Your task to perform on an android device: Open the stopwatch Image 0: 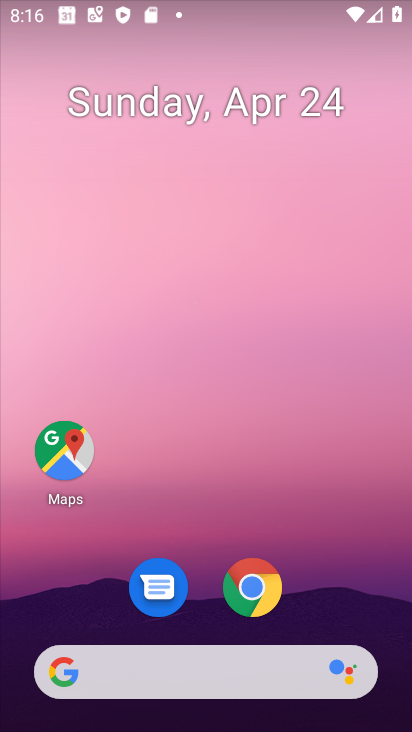
Step 0: drag from (346, 575) to (375, 236)
Your task to perform on an android device: Open the stopwatch Image 1: 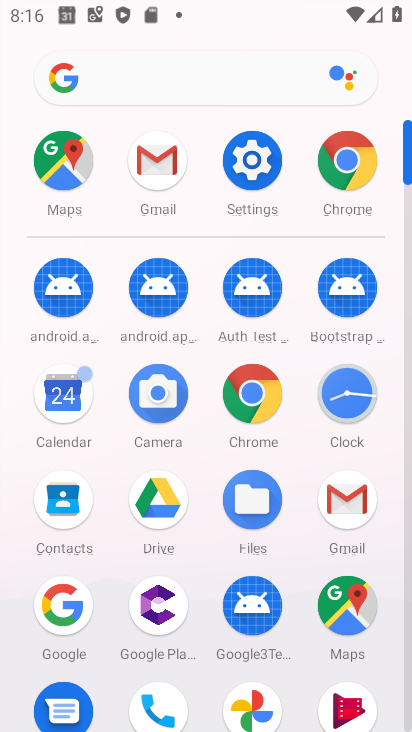
Step 1: click (335, 401)
Your task to perform on an android device: Open the stopwatch Image 2: 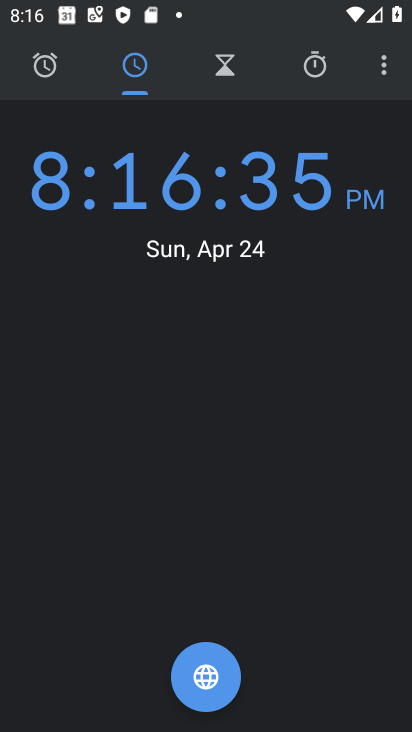
Step 2: click (323, 72)
Your task to perform on an android device: Open the stopwatch Image 3: 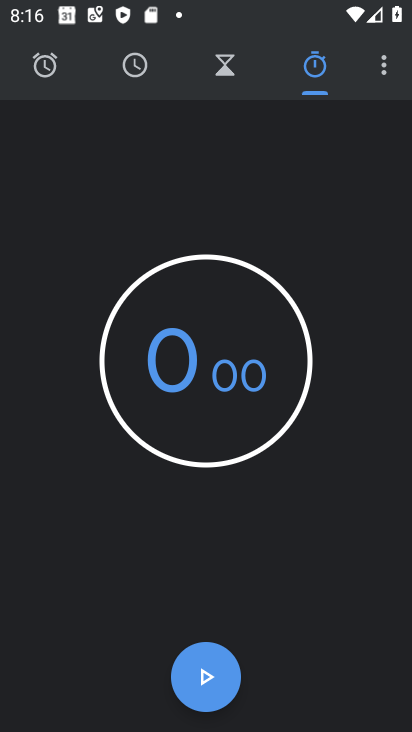
Step 3: task complete